Your task to perform on an android device: change notification settings in the gmail app Image 0: 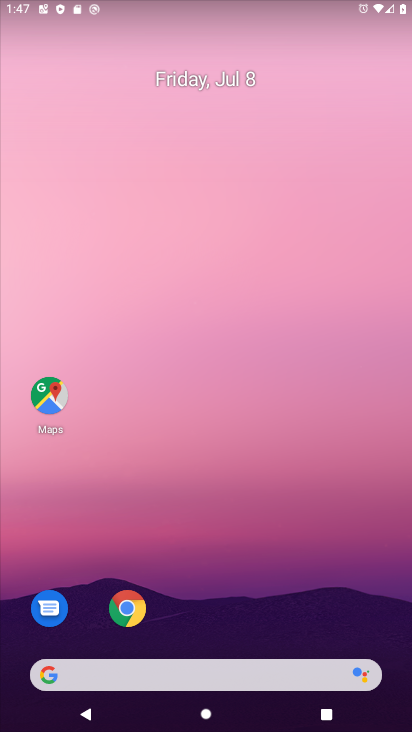
Step 0: drag from (243, 99) to (304, 21)
Your task to perform on an android device: change notification settings in the gmail app Image 1: 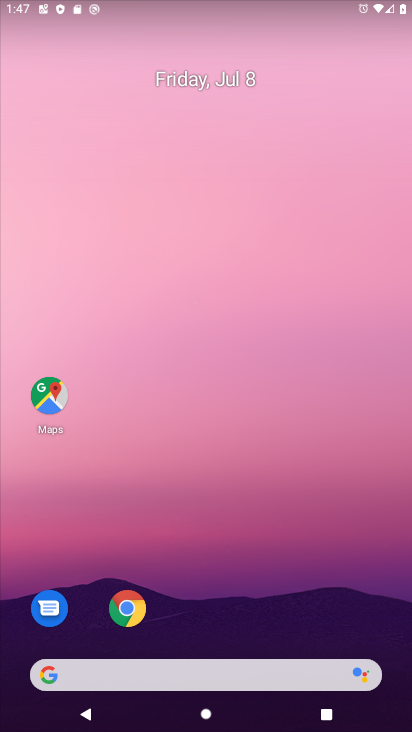
Step 1: drag from (211, 610) to (186, 37)
Your task to perform on an android device: change notification settings in the gmail app Image 2: 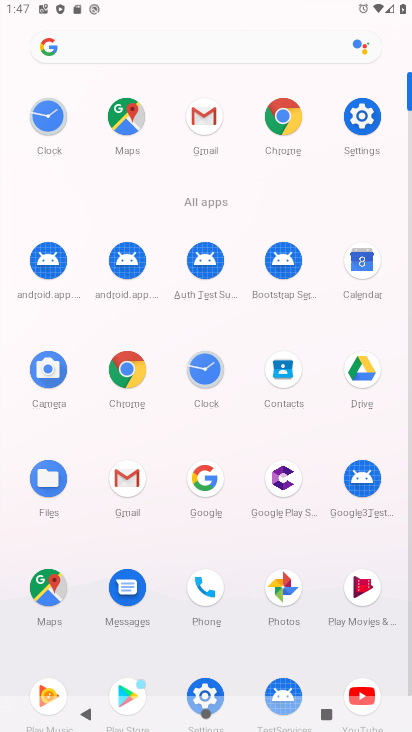
Step 2: click (129, 475)
Your task to perform on an android device: change notification settings in the gmail app Image 3: 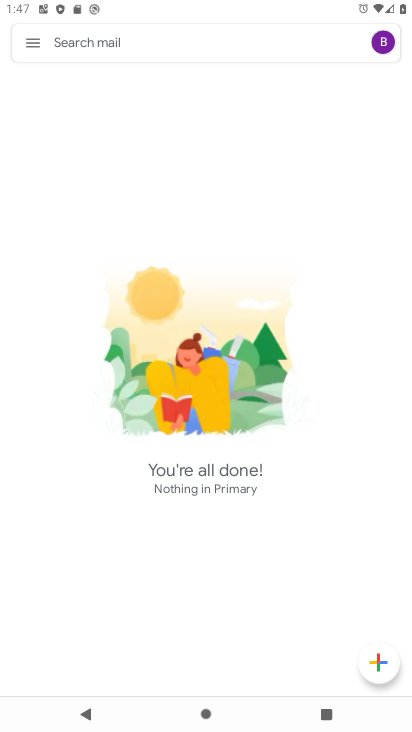
Step 3: click (38, 44)
Your task to perform on an android device: change notification settings in the gmail app Image 4: 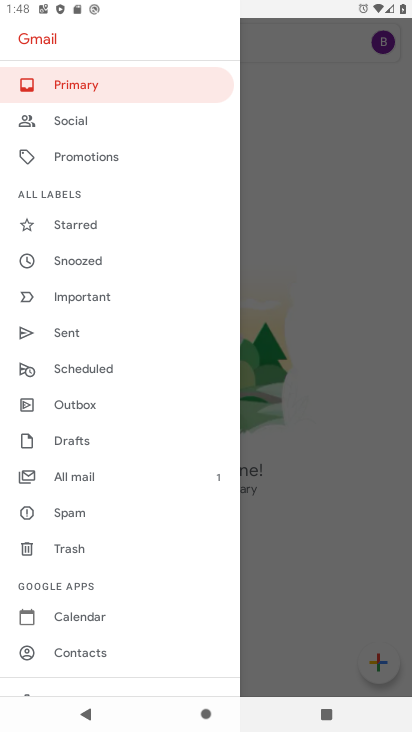
Step 4: drag from (101, 615) to (146, 248)
Your task to perform on an android device: change notification settings in the gmail app Image 5: 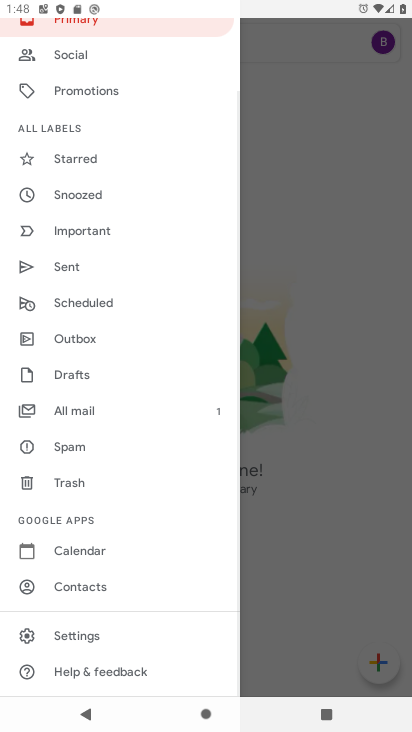
Step 5: click (97, 632)
Your task to perform on an android device: change notification settings in the gmail app Image 6: 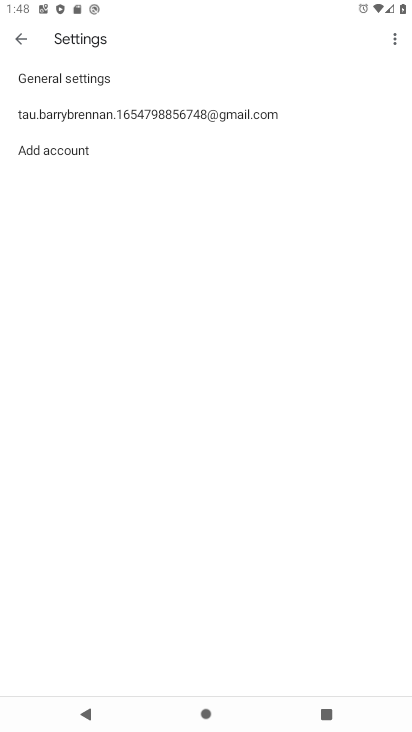
Step 6: click (264, 122)
Your task to perform on an android device: change notification settings in the gmail app Image 7: 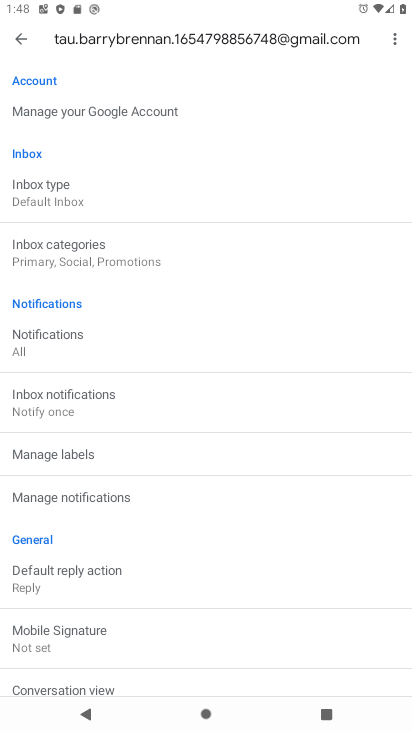
Step 7: click (61, 287)
Your task to perform on an android device: change notification settings in the gmail app Image 8: 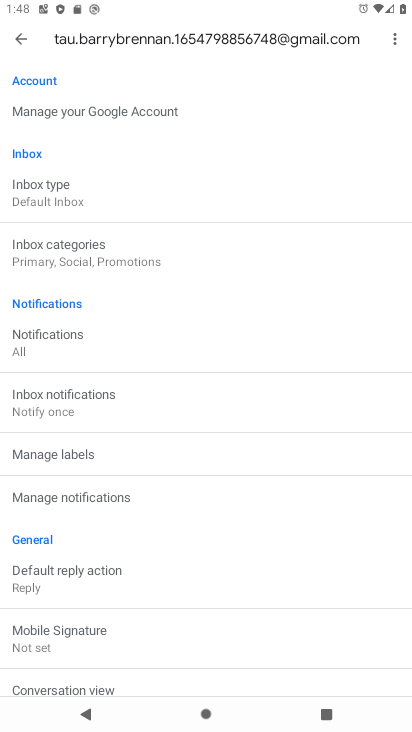
Step 8: click (107, 336)
Your task to perform on an android device: change notification settings in the gmail app Image 9: 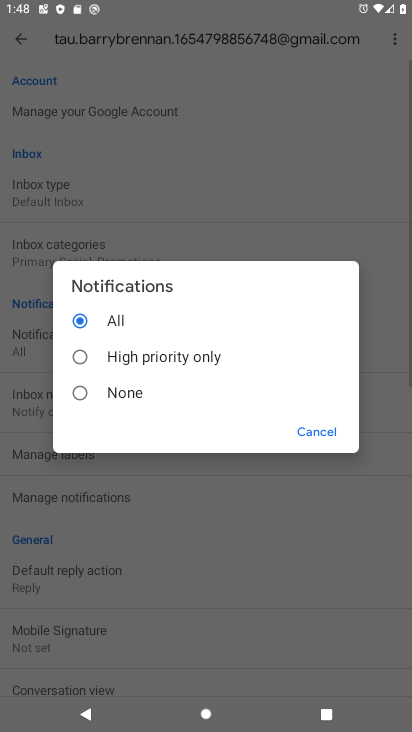
Step 9: click (160, 353)
Your task to perform on an android device: change notification settings in the gmail app Image 10: 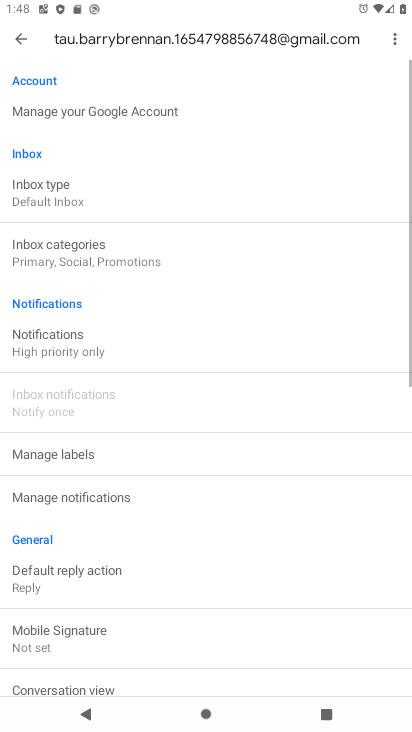
Step 10: task complete